Your task to perform on an android device: see tabs open on other devices in the chrome app Image 0: 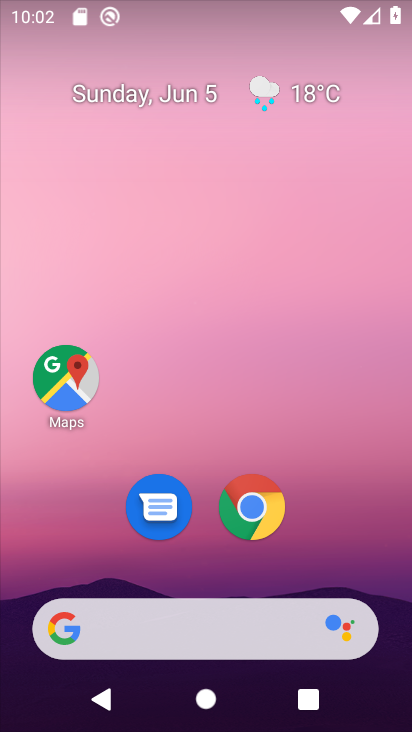
Step 0: click (267, 505)
Your task to perform on an android device: see tabs open on other devices in the chrome app Image 1: 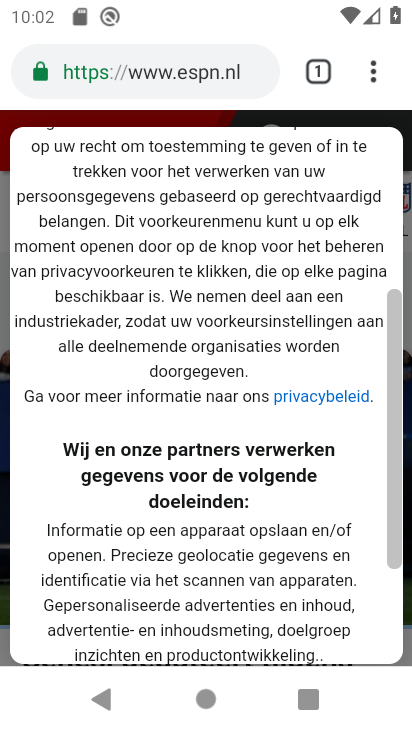
Step 1: click (365, 69)
Your task to perform on an android device: see tabs open on other devices in the chrome app Image 2: 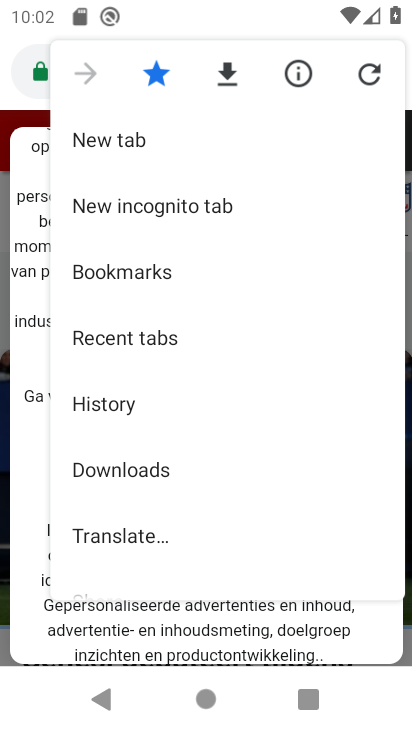
Step 2: click (158, 334)
Your task to perform on an android device: see tabs open on other devices in the chrome app Image 3: 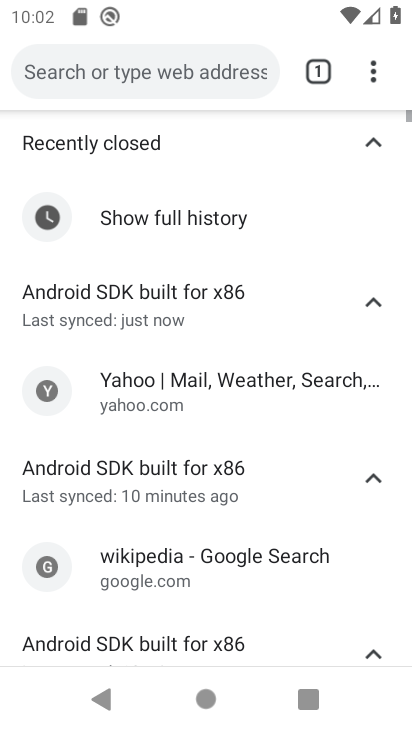
Step 3: task complete